Your task to perform on an android device: Open eBay Image 0: 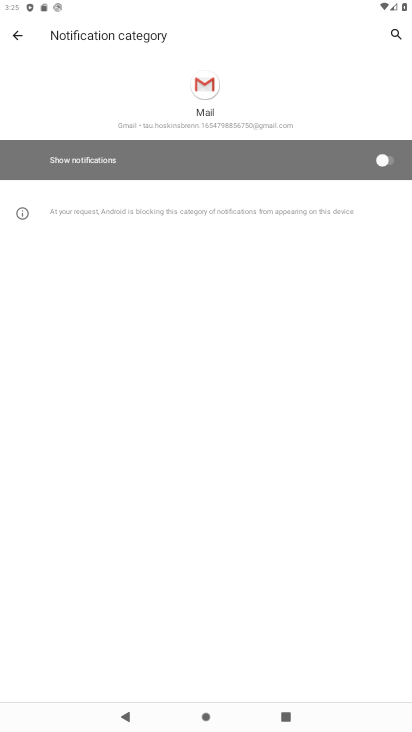
Step 0: press home button
Your task to perform on an android device: Open eBay Image 1: 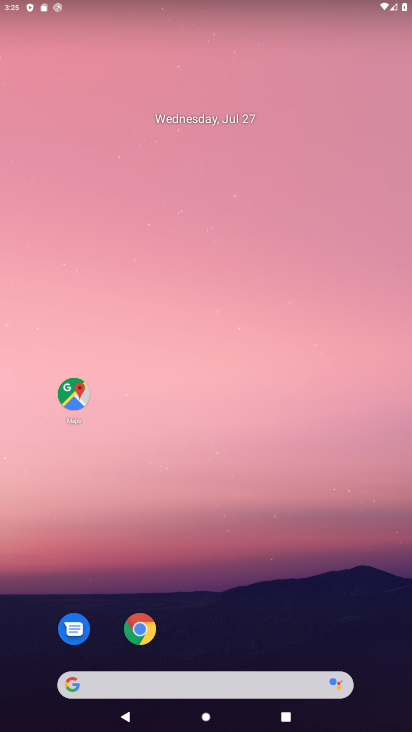
Step 1: drag from (304, 601) to (320, 7)
Your task to perform on an android device: Open eBay Image 2: 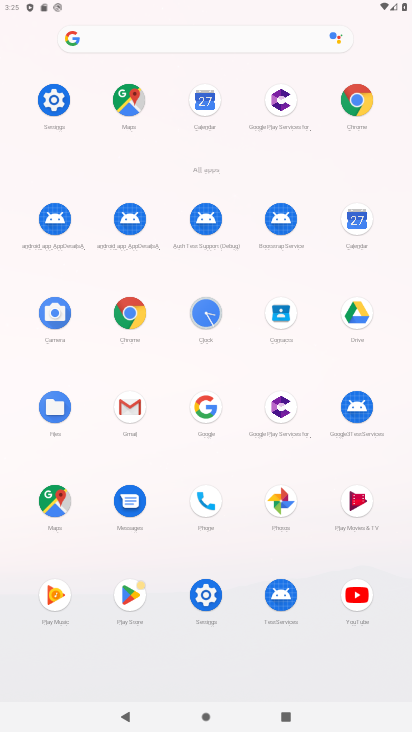
Step 2: click (354, 102)
Your task to perform on an android device: Open eBay Image 3: 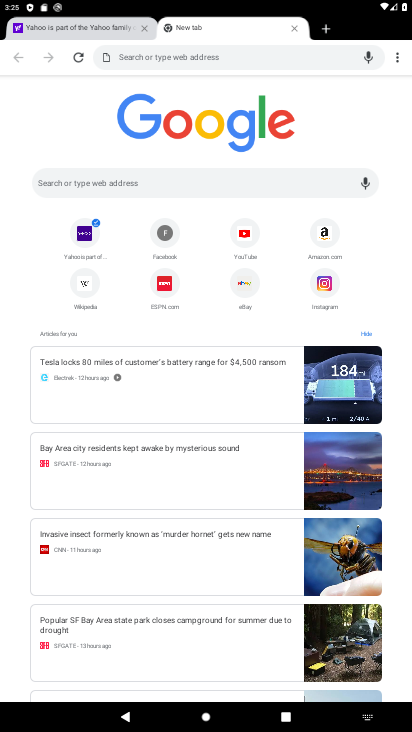
Step 3: type "ebay"
Your task to perform on an android device: Open eBay Image 4: 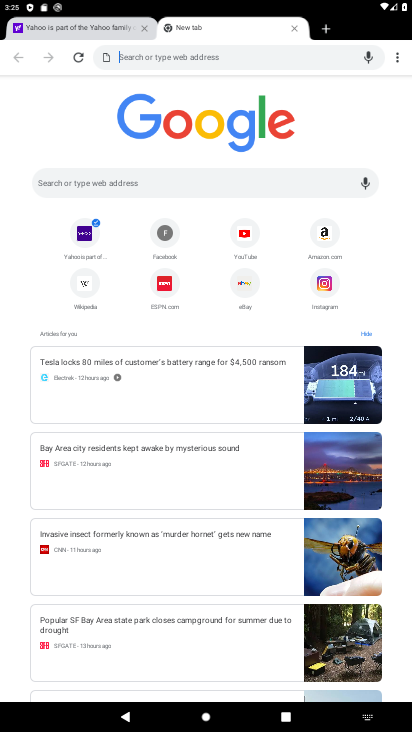
Step 4: click (238, 279)
Your task to perform on an android device: Open eBay Image 5: 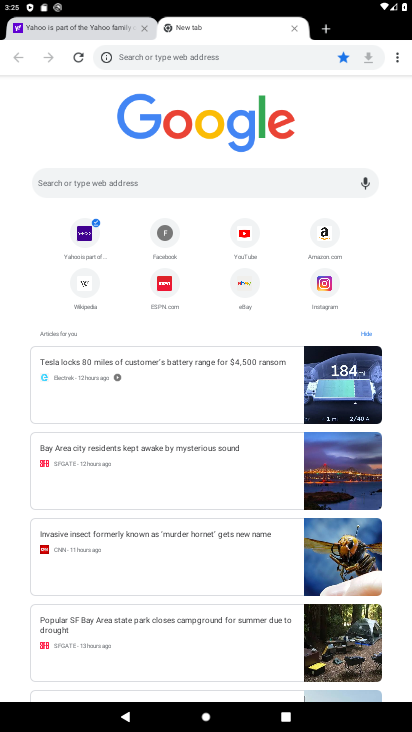
Step 5: click (247, 289)
Your task to perform on an android device: Open eBay Image 6: 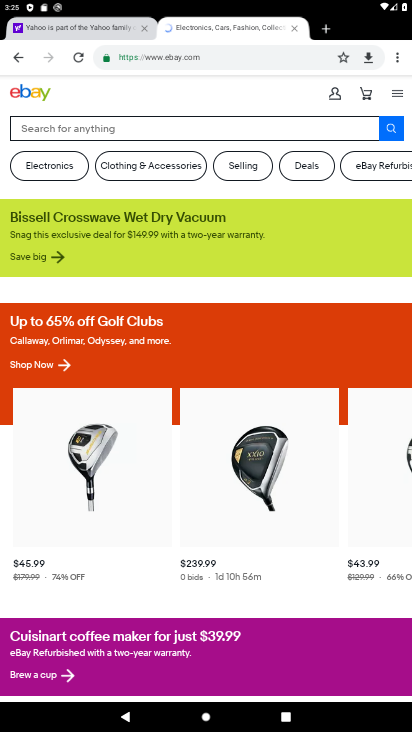
Step 6: task complete